Your task to perform on an android device: turn off smart reply in the gmail app Image 0: 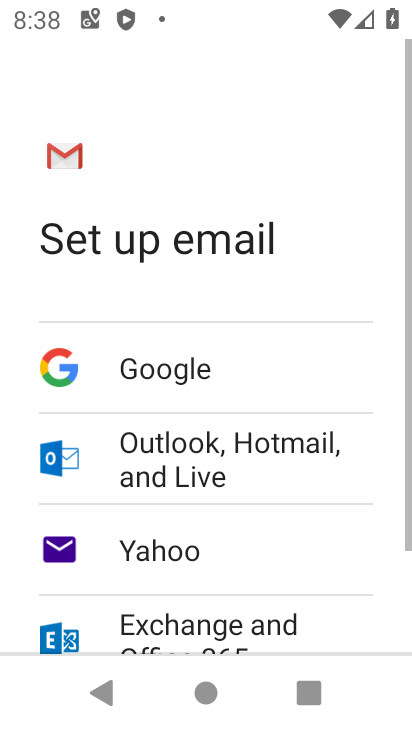
Step 0: press home button
Your task to perform on an android device: turn off smart reply in the gmail app Image 1: 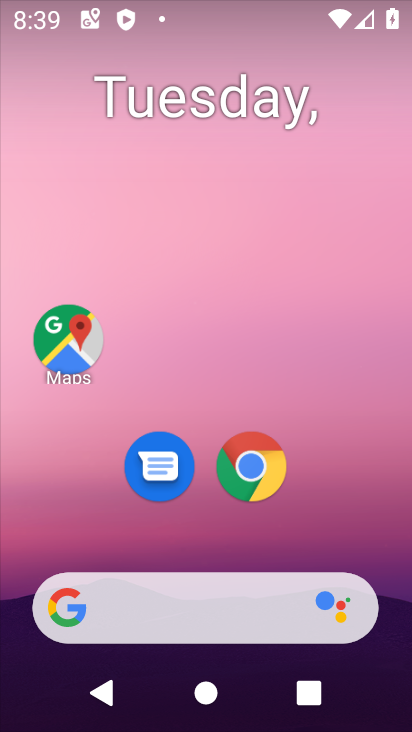
Step 1: drag from (333, 518) to (237, 24)
Your task to perform on an android device: turn off smart reply in the gmail app Image 2: 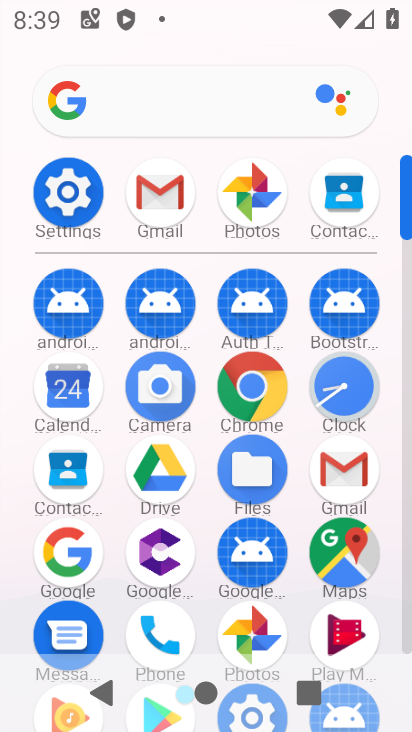
Step 2: click (157, 197)
Your task to perform on an android device: turn off smart reply in the gmail app Image 3: 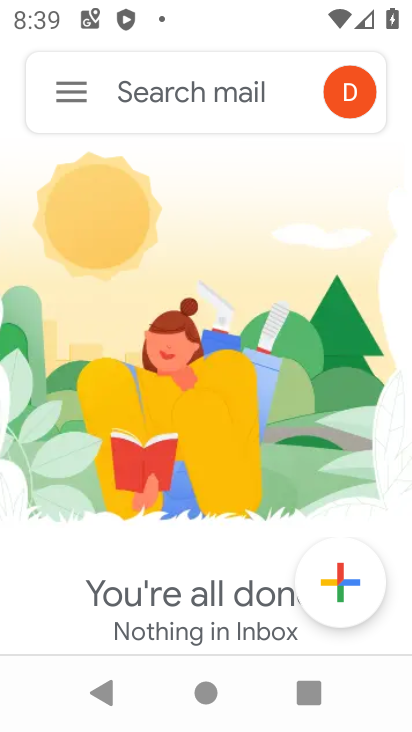
Step 3: click (55, 92)
Your task to perform on an android device: turn off smart reply in the gmail app Image 4: 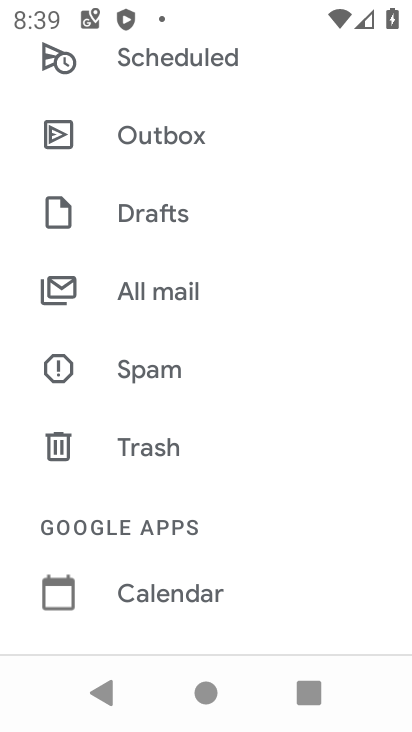
Step 4: drag from (161, 572) to (144, 196)
Your task to perform on an android device: turn off smart reply in the gmail app Image 5: 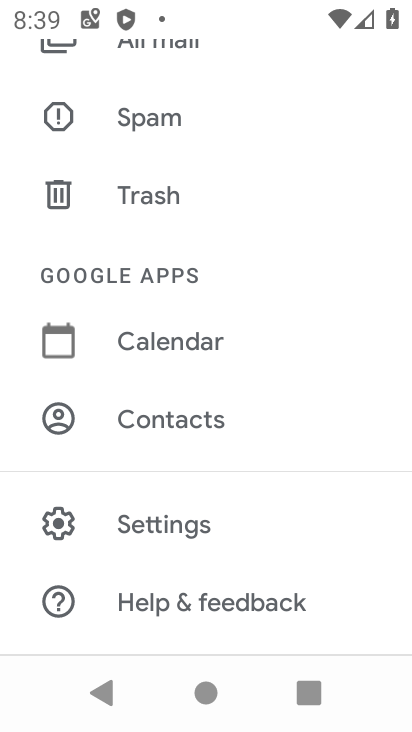
Step 5: click (150, 512)
Your task to perform on an android device: turn off smart reply in the gmail app Image 6: 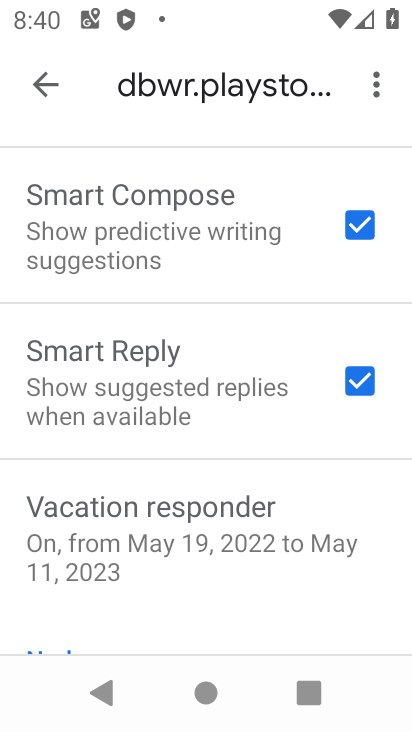
Step 6: click (379, 374)
Your task to perform on an android device: turn off smart reply in the gmail app Image 7: 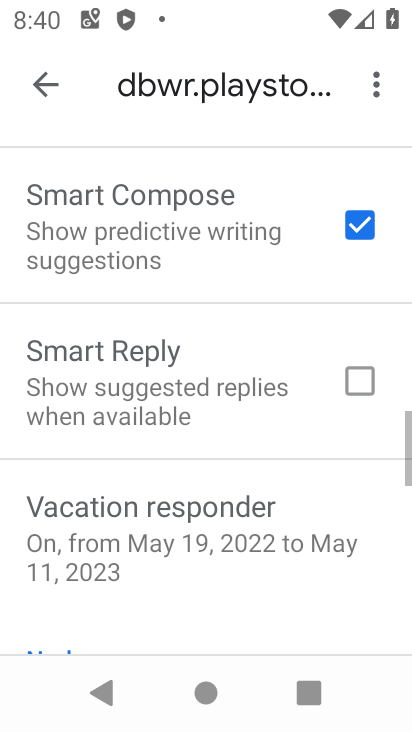
Step 7: task complete